Your task to perform on an android device: Clear the cart on newegg. Image 0: 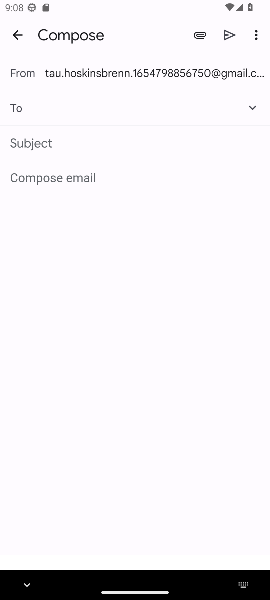
Step 0: press home button
Your task to perform on an android device: Clear the cart on newegg. Image 1: 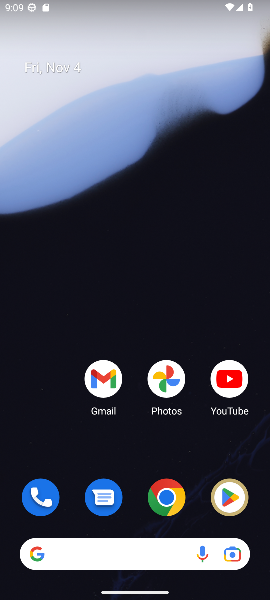
Step 1: click (168, 502)
Your task to perform on an android device: Clear the cart on newegg. Image 2: 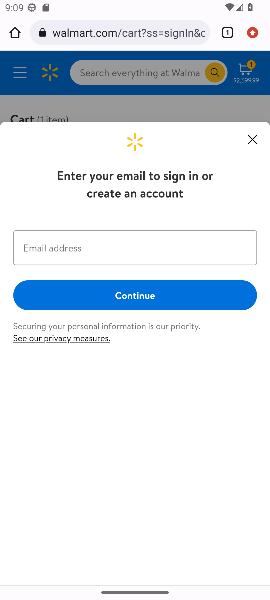
Step 2: click (114, 38)
Your task to perform on an android device: Clear the cart on newegg. Image 3: 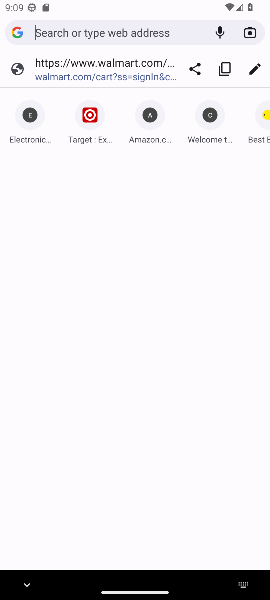
Step 3: type "newegg.com"
Your task to perform on an android device: Clear the cart on newegg. Image 4: 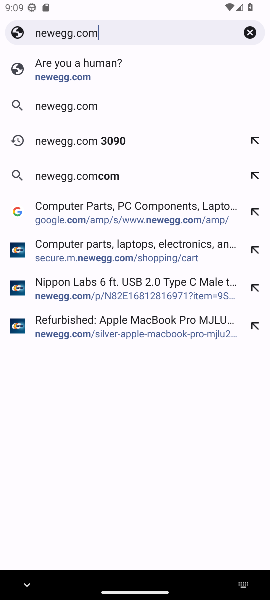
Step 4: click (64, 111)
Your task to perform on an android device: Clear the cart on newegg. Image 5: 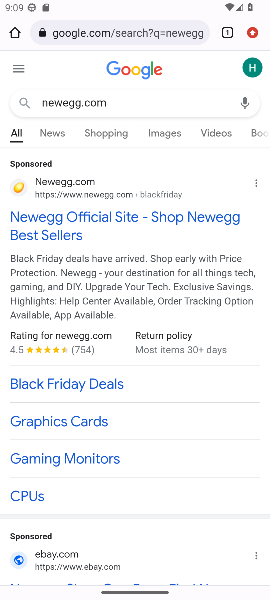
Step 5: drag from (98, 471) to (92, 236)
Your task to perform on an android device: Clear the cart on newegg. Image 6: 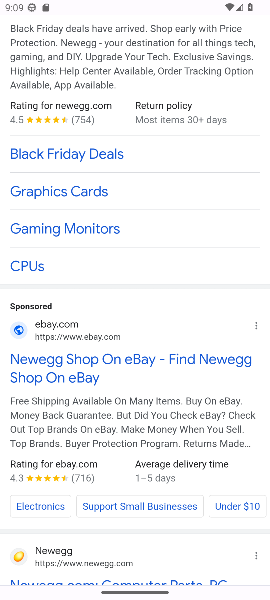
Step 6: drag from (72, 476) to (58, 262)
Your task to perform on an android device: Clear the cart on newegg. Image 7: 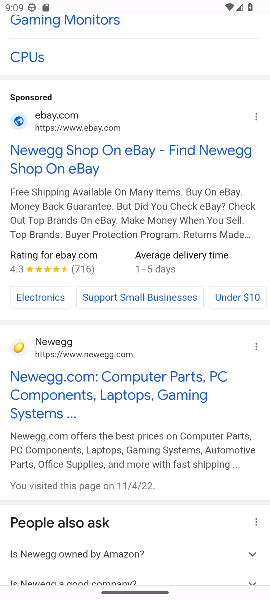
Step 7: click (37, 380)
Your task to perform on an android device: Clear the cart on newegg. Image 8: 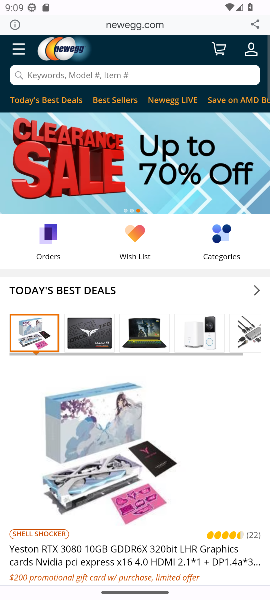
Step 8: click (217, 52)
Your task to perform on an android device: Clear the cart on newegg. Image 9: 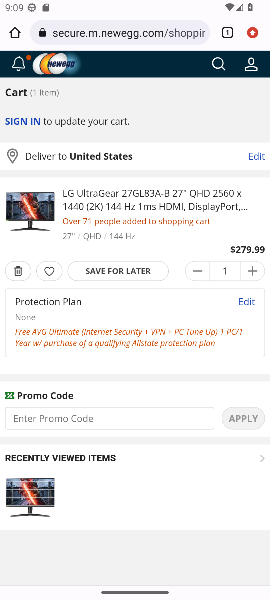
Step 9: click (20, 268)
Your task to perform on an android device: Clear the cart on newegg. Image 10: 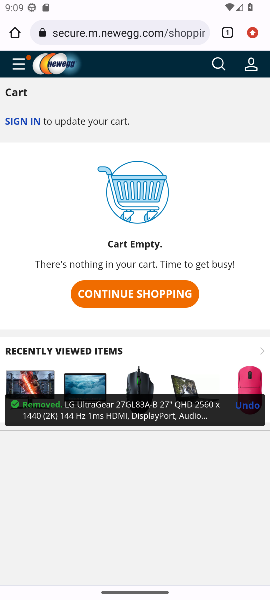
Step 10: task complete